Your task to perform on an android device: Open notification settings Image 0: 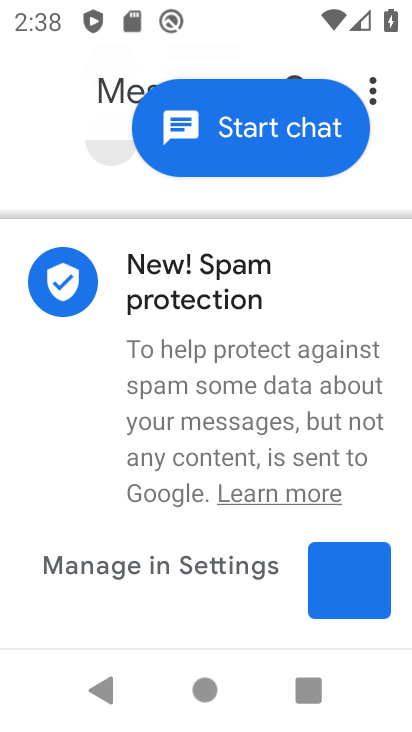
Step 0: drag from (216, 727) to (229, 205)
Your task to perform on an android device: Open notification settings Image 1: 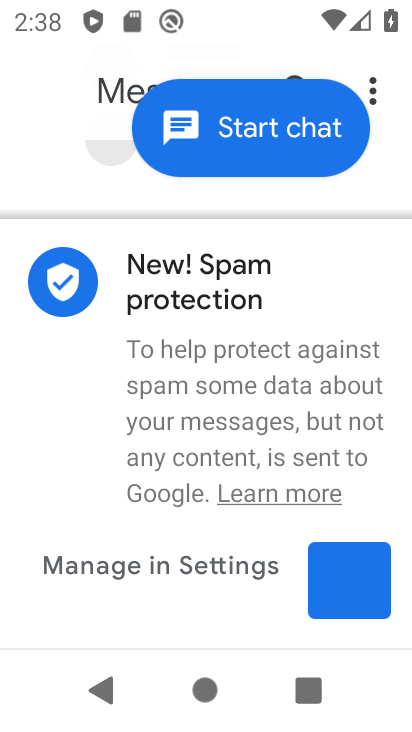
Step 1: press home button
Your task to perform on an android device: Open notification settings Image 2: 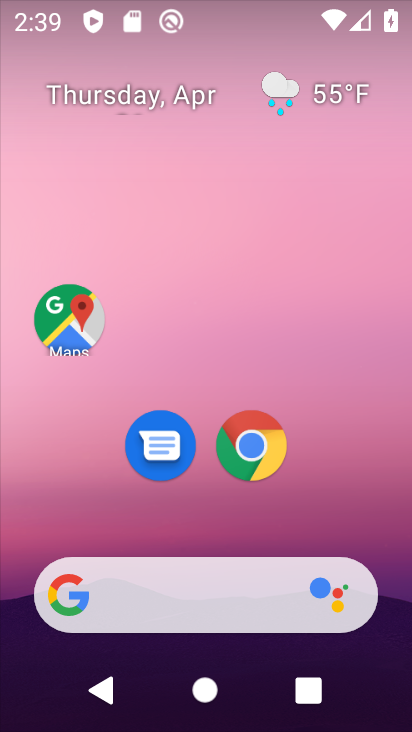
Step 2: drag from (223, 715) to (218, 119)
Your task to perform on an android device: Open notification settings Image 3: 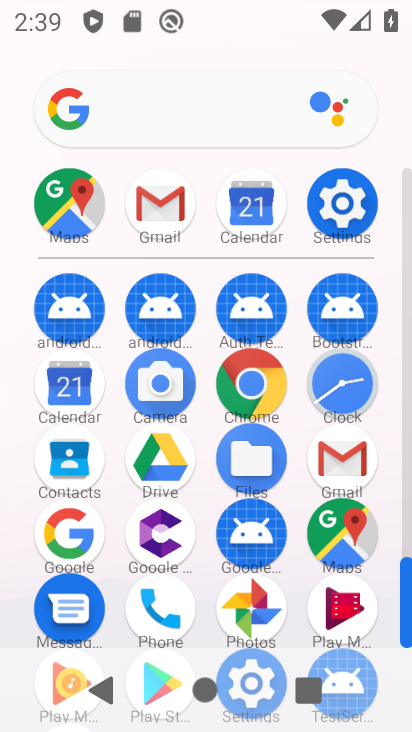
Step 3: click (343, 200)
Your task to perform on an android device: Open notification settings Image 4: 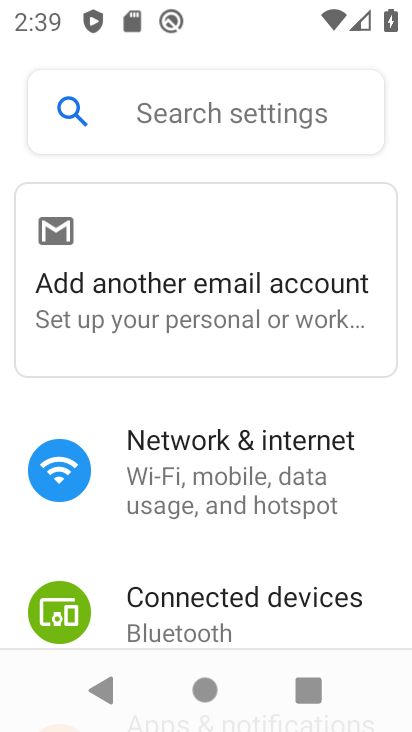
Step 4: drag from (250, 642) to (234, 155)
Your task to perform on an android device: Open notification settings Image 5: 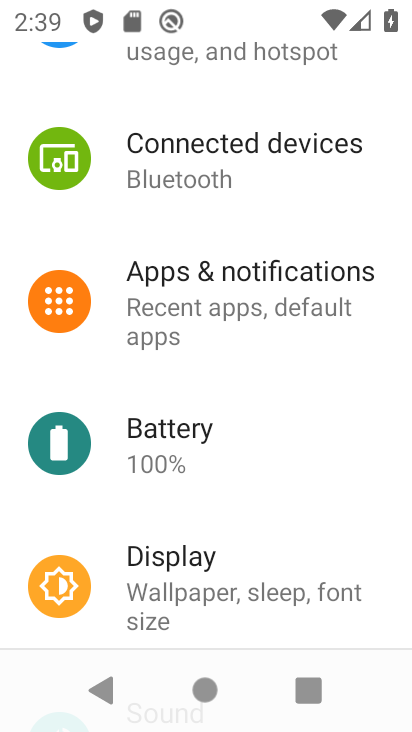
Step 5: click (220, 297)
Your task to perform on an android device: Open notification settings Image 6: 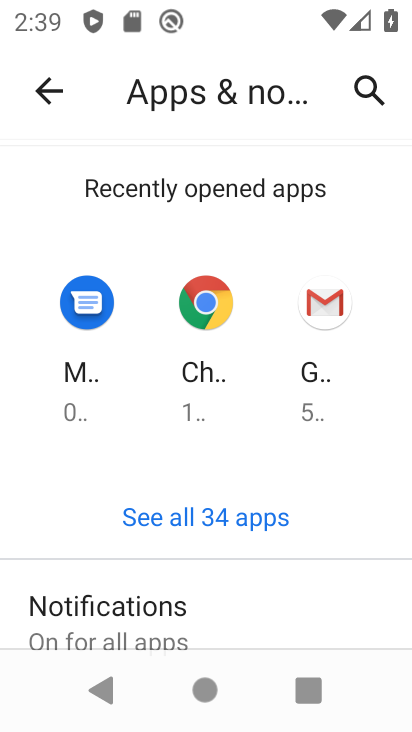
Step 6: drag from (219, 622) to (213, 367)
Your task to perform on an android device: Open notification settings Image 7: 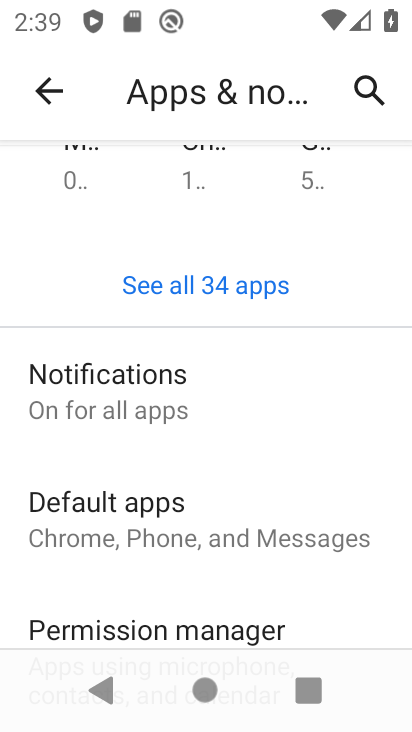
Step 7: click (130, 393)
Your task to perform on an android device: Open notification settings Image 8: 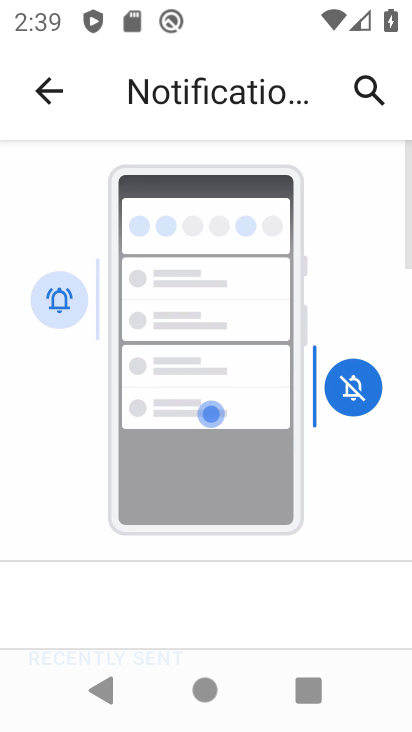
Step 8: task complete